Your task to perform on an android device: Go to network settings Image 0: 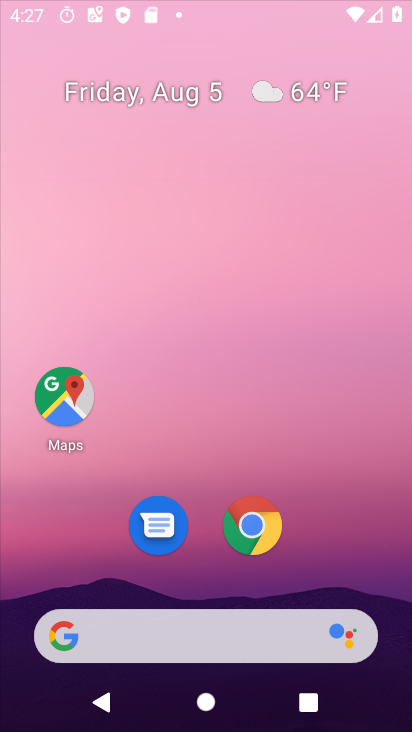
Step 0: press home button
Your task to perform on an android device: Go to network settings Image 1: 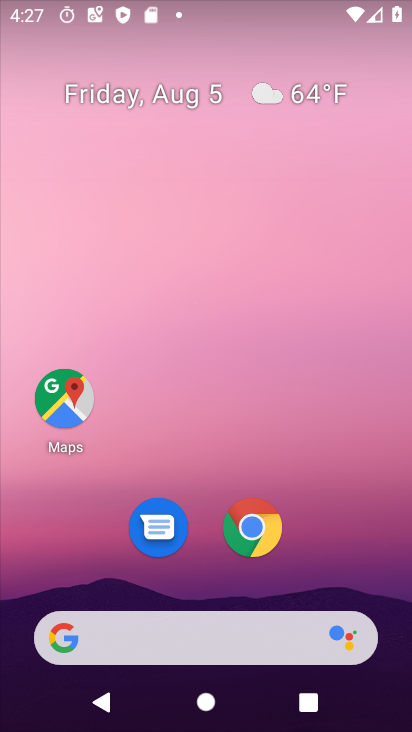
Step 1: drag from (198, 12) to (256, 611)
Your task to perform on an android device: Go to network settings Image 2: 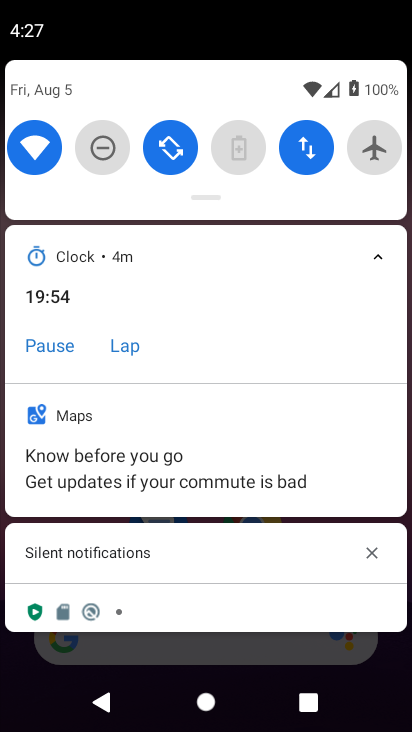
Step 2: click (227, 666)
Your task to perform on an android device: Go to network settings Image 3: 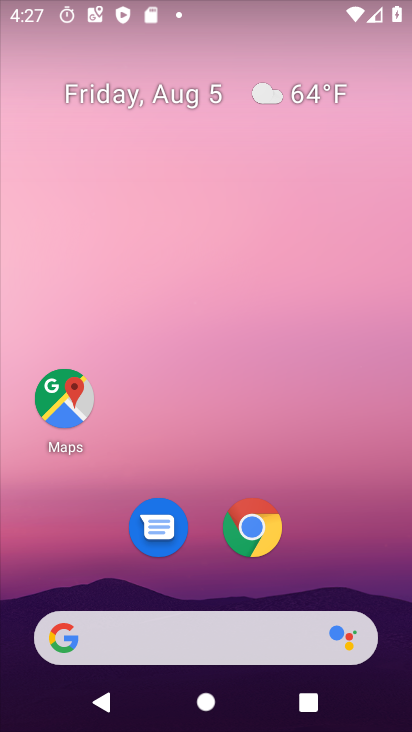
Step 3: drag from (211, 581) to (240, 92)
Your task to perform on an android device: Go to network settings Image 4: 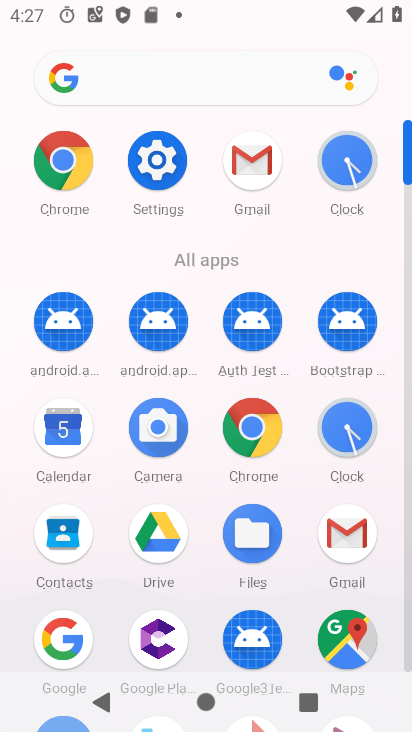
Step 4: click (152, 152)
Your task to perform on an android device: Go to network settings Image 5: 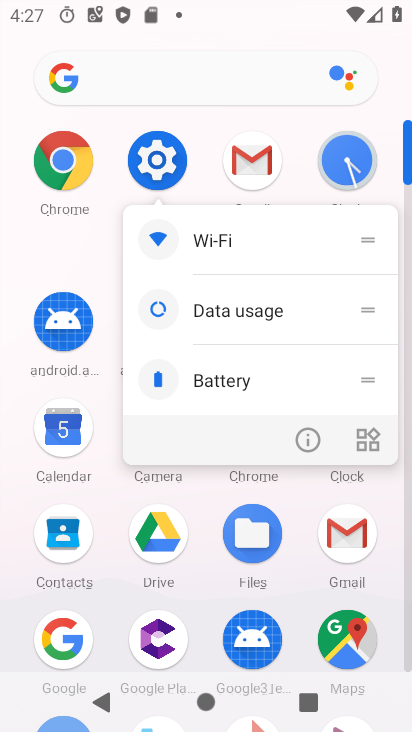
Step 5: click (155, 159)
Your task to perform on an android device: Go to network settings Image 6: 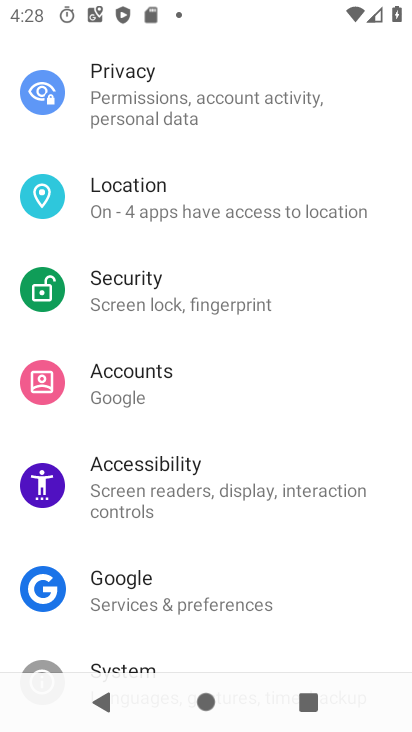
Step 6: drag from (176, 116) to (290, 731)
Your task to perform on an android device: Go to network settings Image 7: 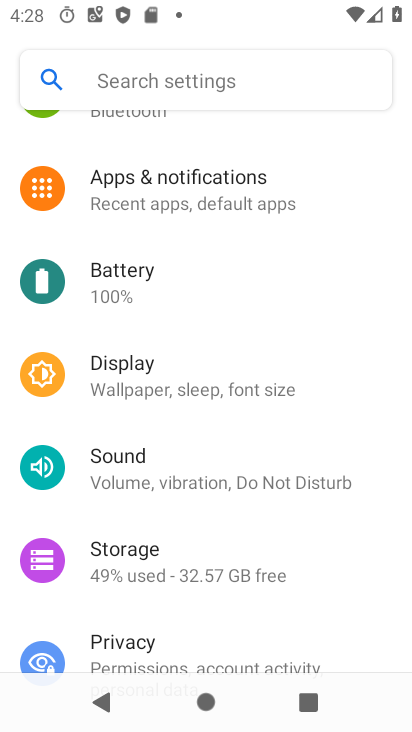
Step 7: drag from (157, 190) to (204, 725)
Your task to perform on an android device: Go to network settings Image 8: 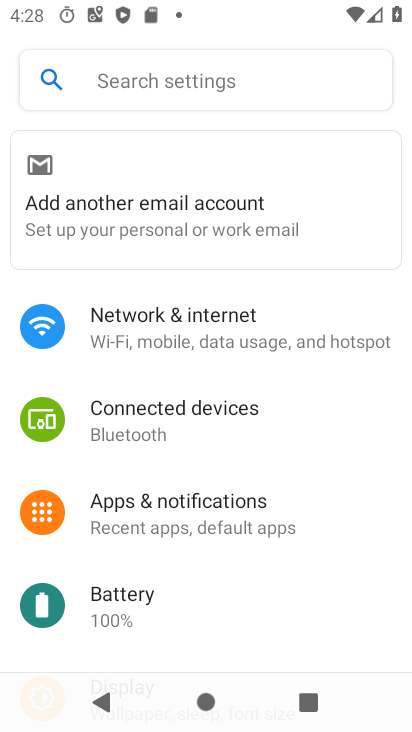
Step 8: click (163, 313)
Your task to perform on an android device: Go to network settings Image 9: 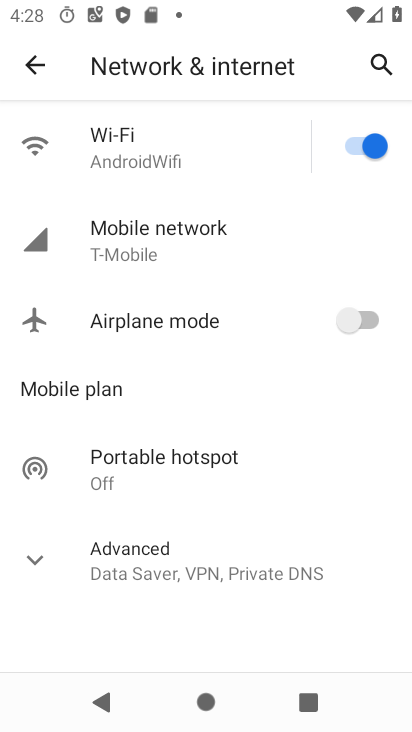
Step 9: click (42, 556)
Your task to perform on an android device: Go to network settings Image 10: 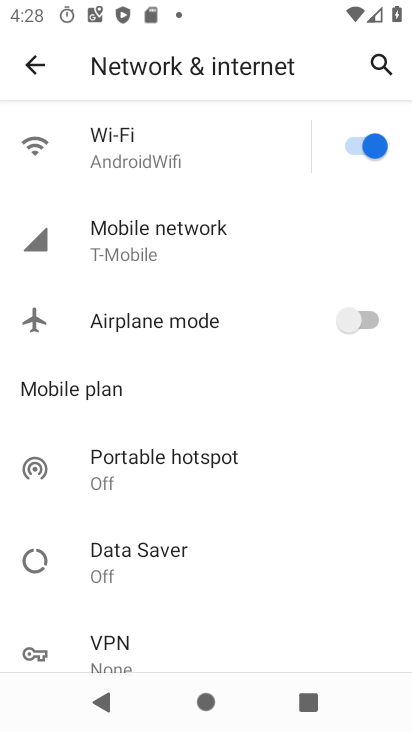
Step 10: task complete